Your task to perform on an android device: Open calendar and show me the third week of next month Image 0: 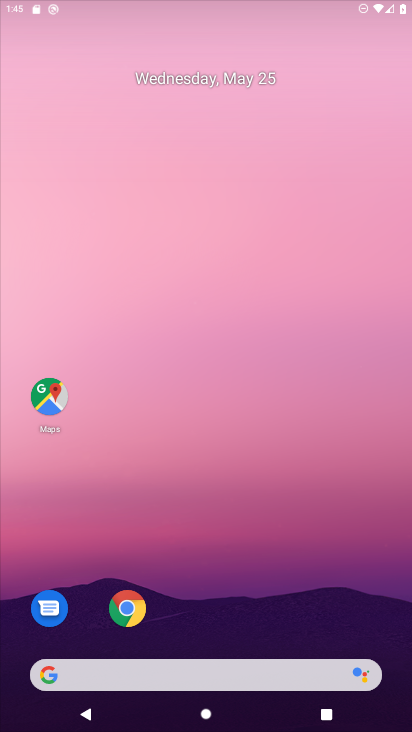
Step 0: drag from (154, 656) to (154, 306)
Your task to perform on an android device: Open calendar and show me the third week of next month Image 1: 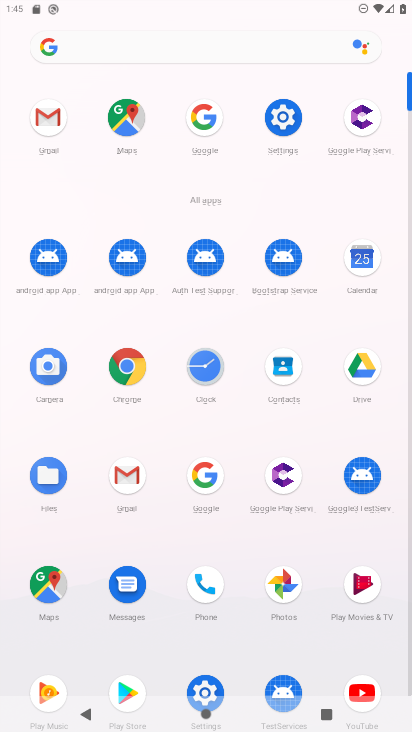
Step 1: click (368, 261)
Your task to perform on an android device: Open calendar and show me the third week of next month Image 2: 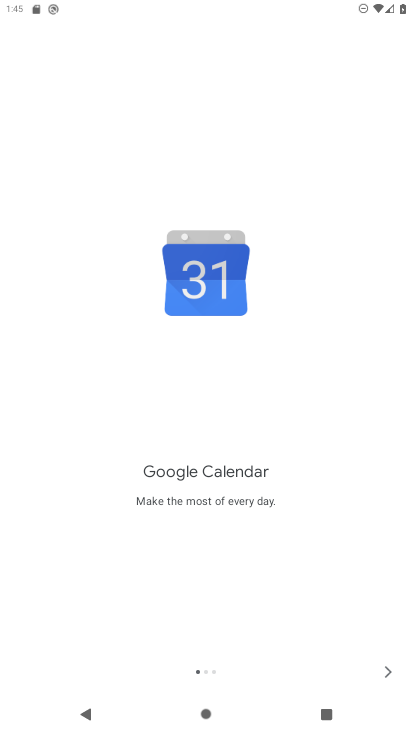
Step 2: click (384, 675)
Your task to perform on an android device: Open calendar and show me the third week of next month Image 3: 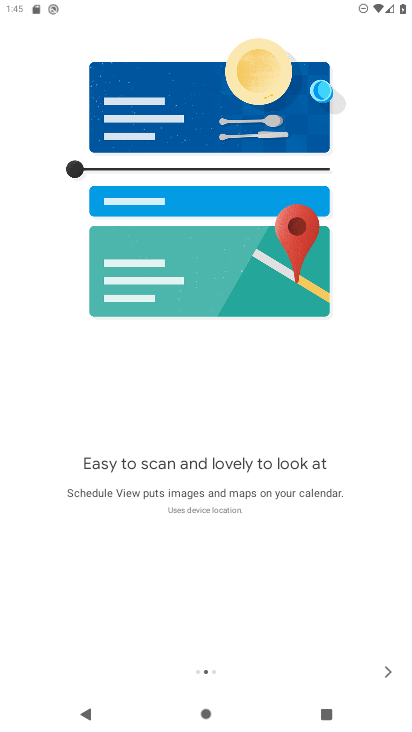
Step 3: click (384, 675)
Your task to perform on an android device: Open calendar and show me the third week of next month Image 4: 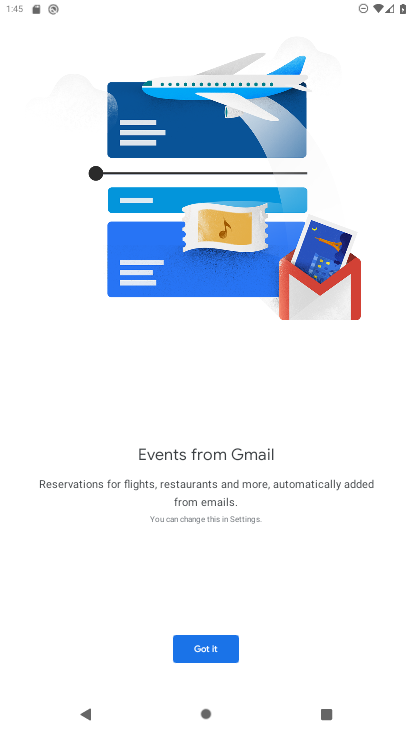
Step 4: click (207, 654)
Your task to perform on an android device: Open calendar and show me the third week of next month Image 5: 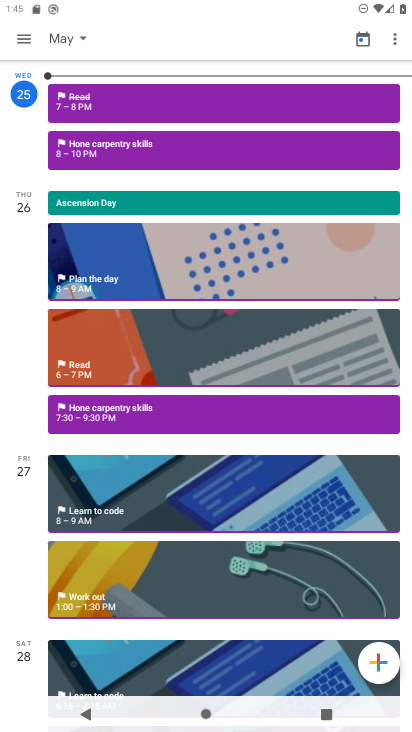
Step 5: click (63, 38)
Your task to perform on an android device: Open calendar and show me the third week of next month Image 6: 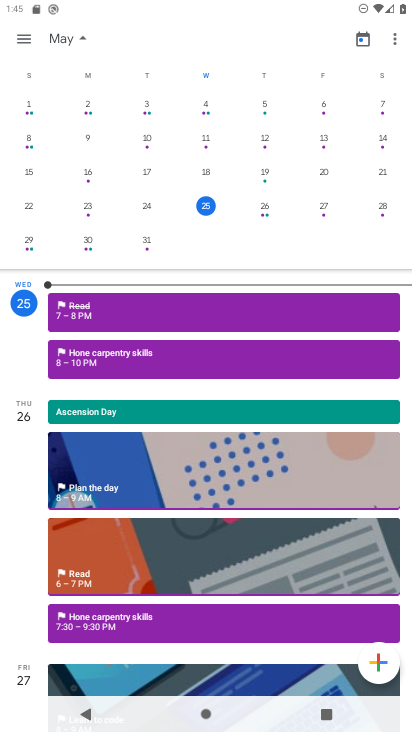
Step 6: drag from (329, 176) to (26, 256)
Your task to perform on an android device: Open calendar and show me the third week of next month Image 7: 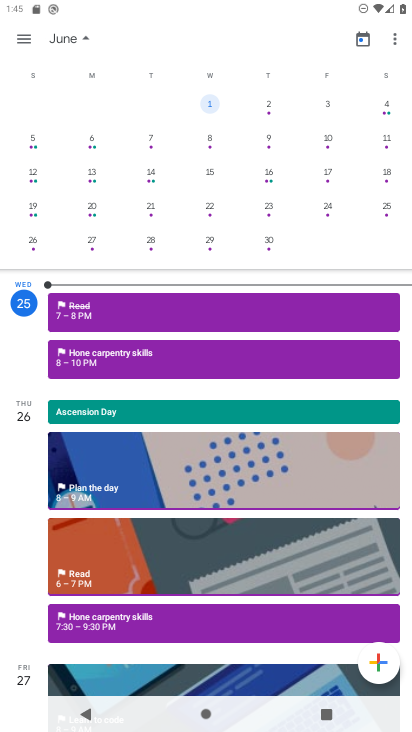
Step 7: drag from (252, 210) to (45, 228)
Your task to perform on an android device: Open calendar and show me the third week of next month Image 8: 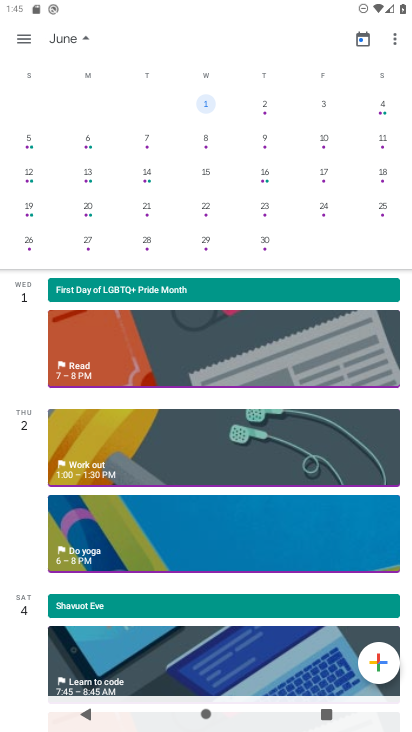
Step 8: click (26, 179)
Your task to perform on an android device: Open calendar and show me the third week of next month Image 9: 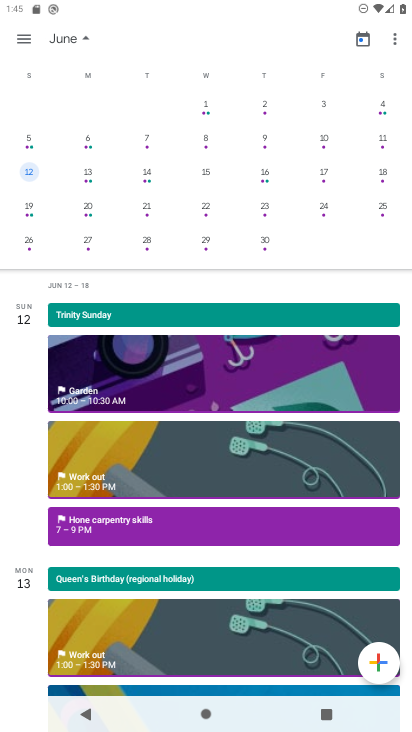
Step 9: task complete